Your task to perform on an android device: Search for the best rated headphones on Amazon. Image 0: 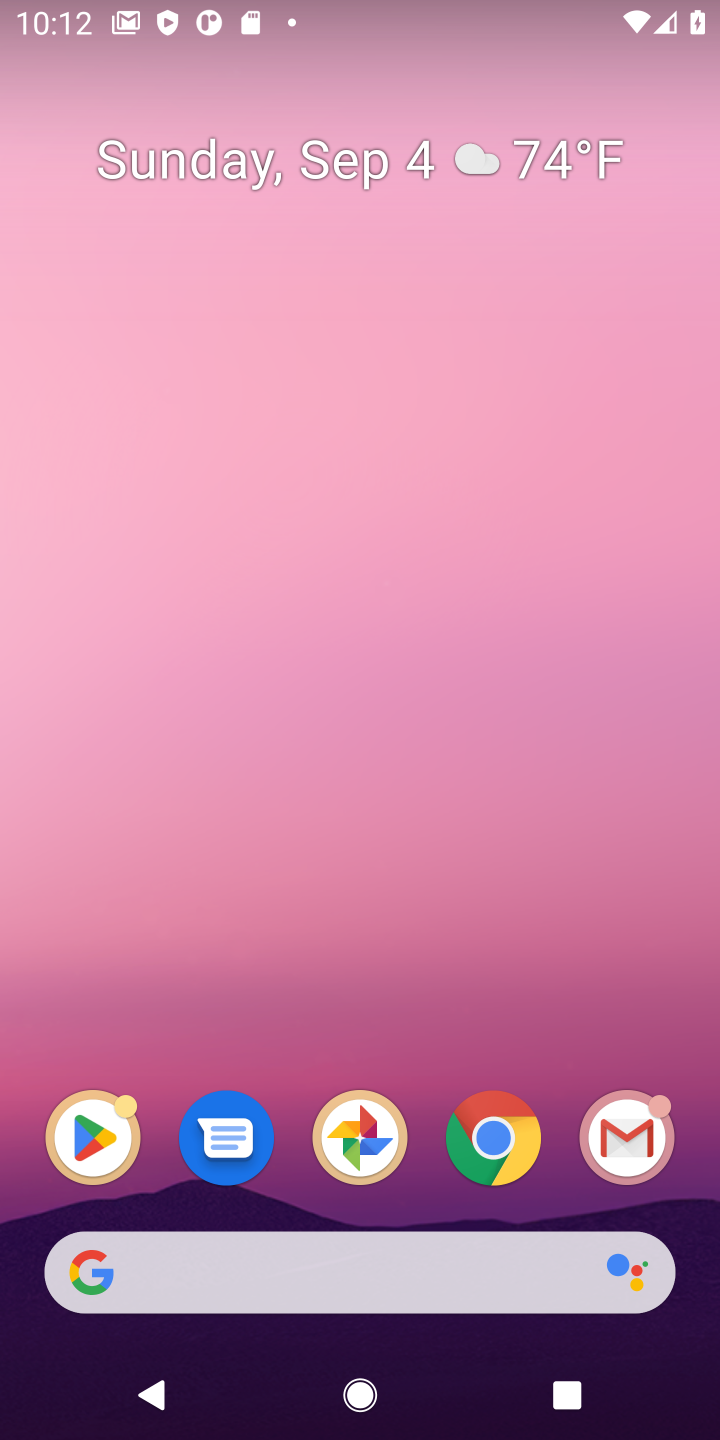
Step 0: click (449, 1131)
Your task to perform on an android device: Search for the best rated headphones on Amazon. Image 1: 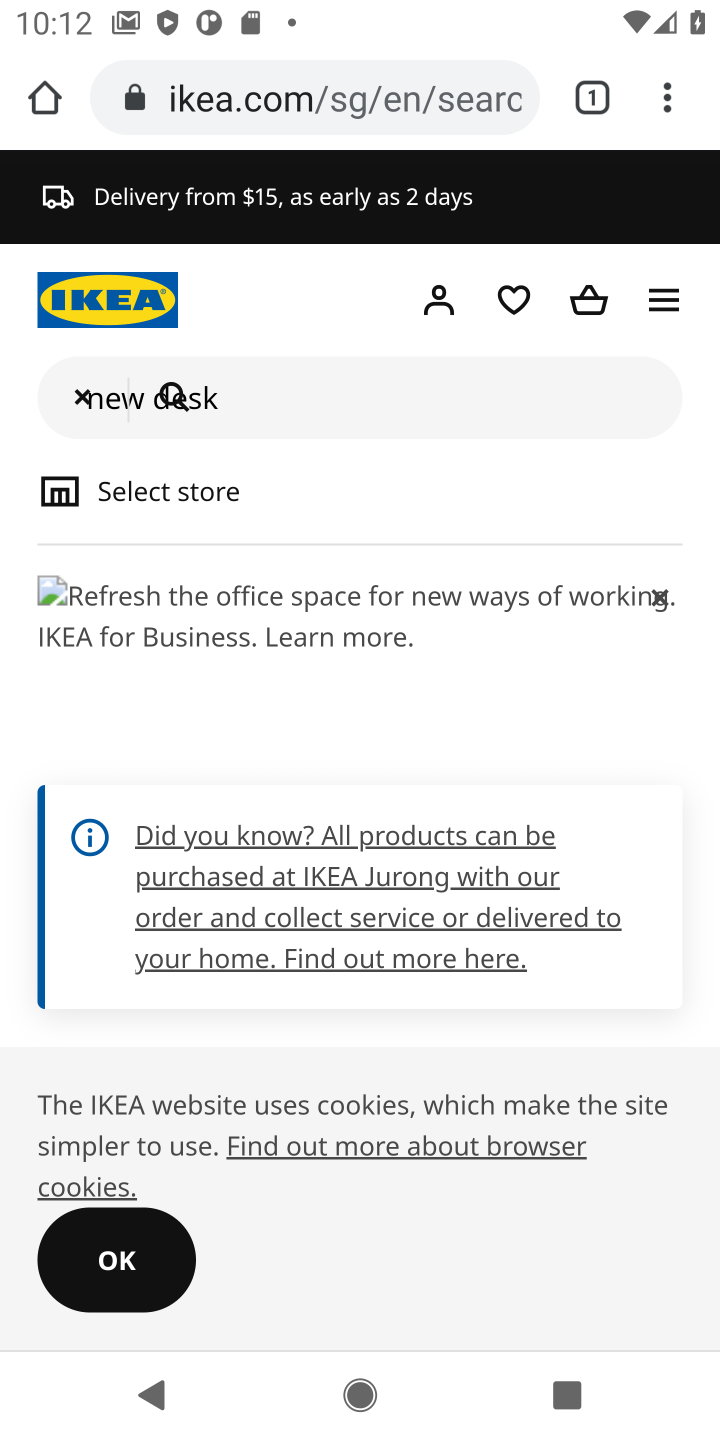
Step 1: click (302, 96)
Your task to perform on an android device: Search for the best rated headphones on Amazon. Image 2: 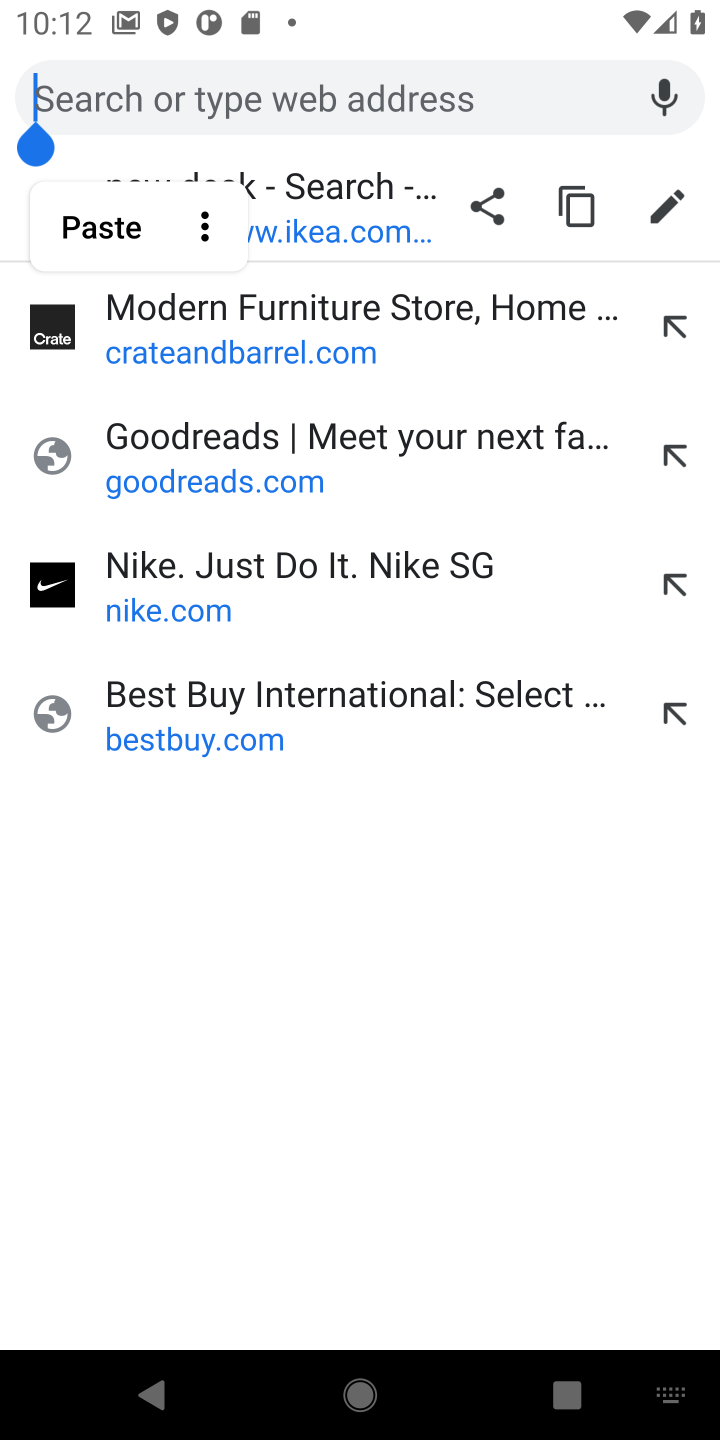
Step 2: type "amazon"
Your task to perform on an android device: Search for the best rated headphones on Amazon. Image 3: 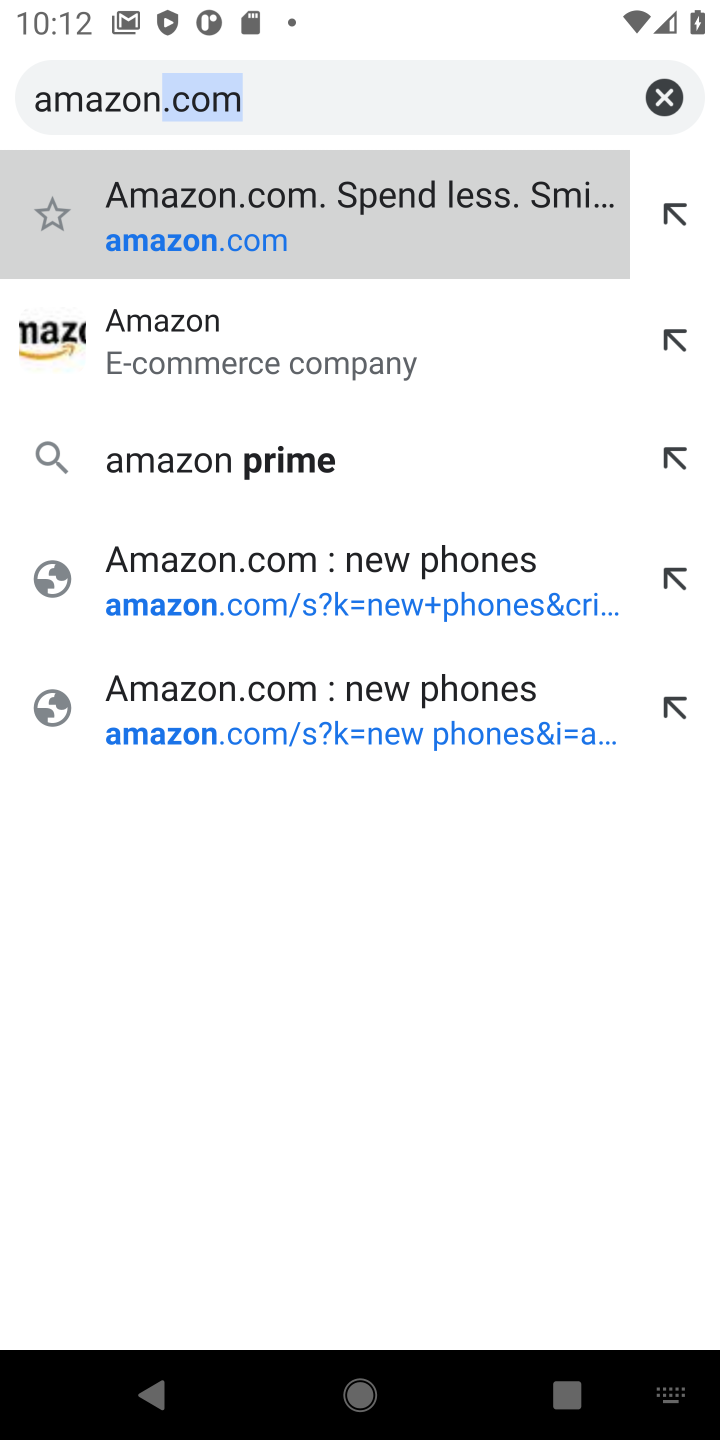
Step 3: click (426, 229)
Your task to perform on an android device: Search for the best rated headphones on Amazon. Image 4: 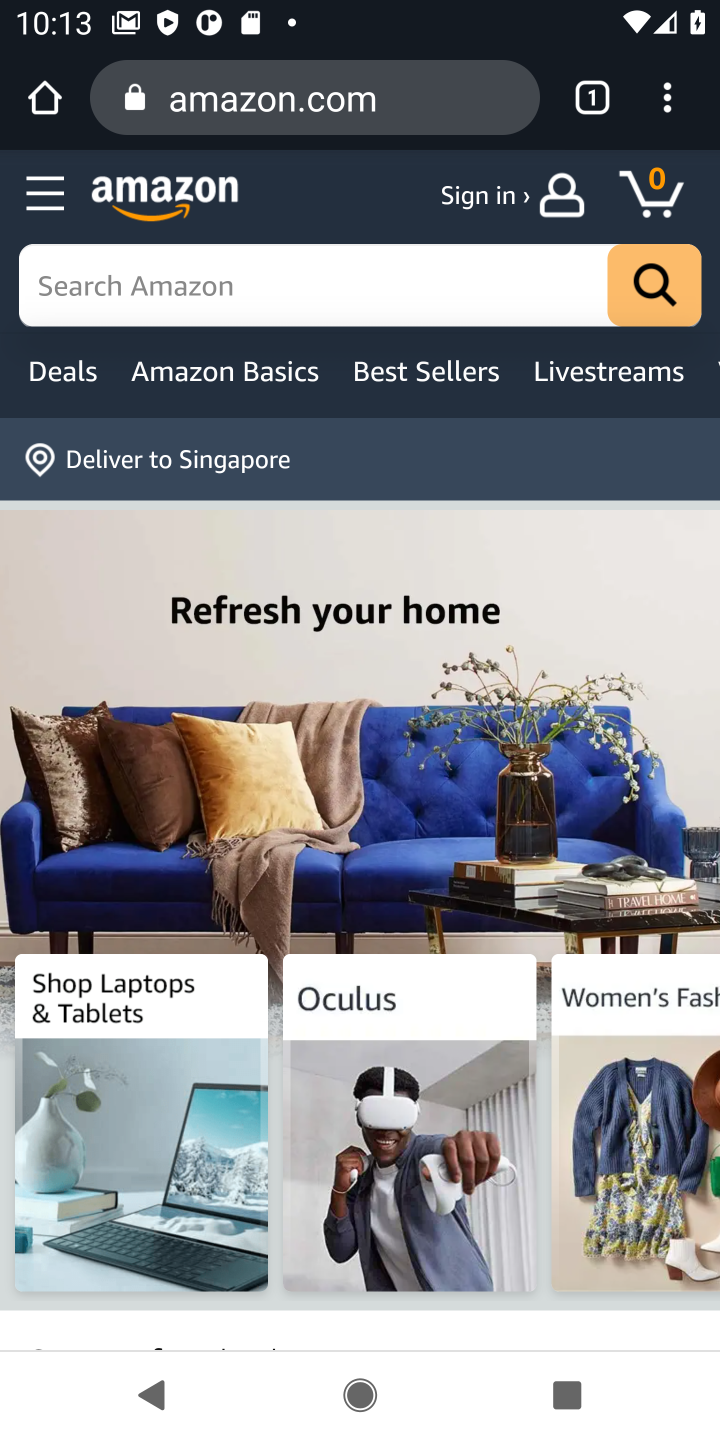
Step 4: click (383, 310)
Your task to perform on an android device: Search for the best rated headphones on Amazon. Image 5: 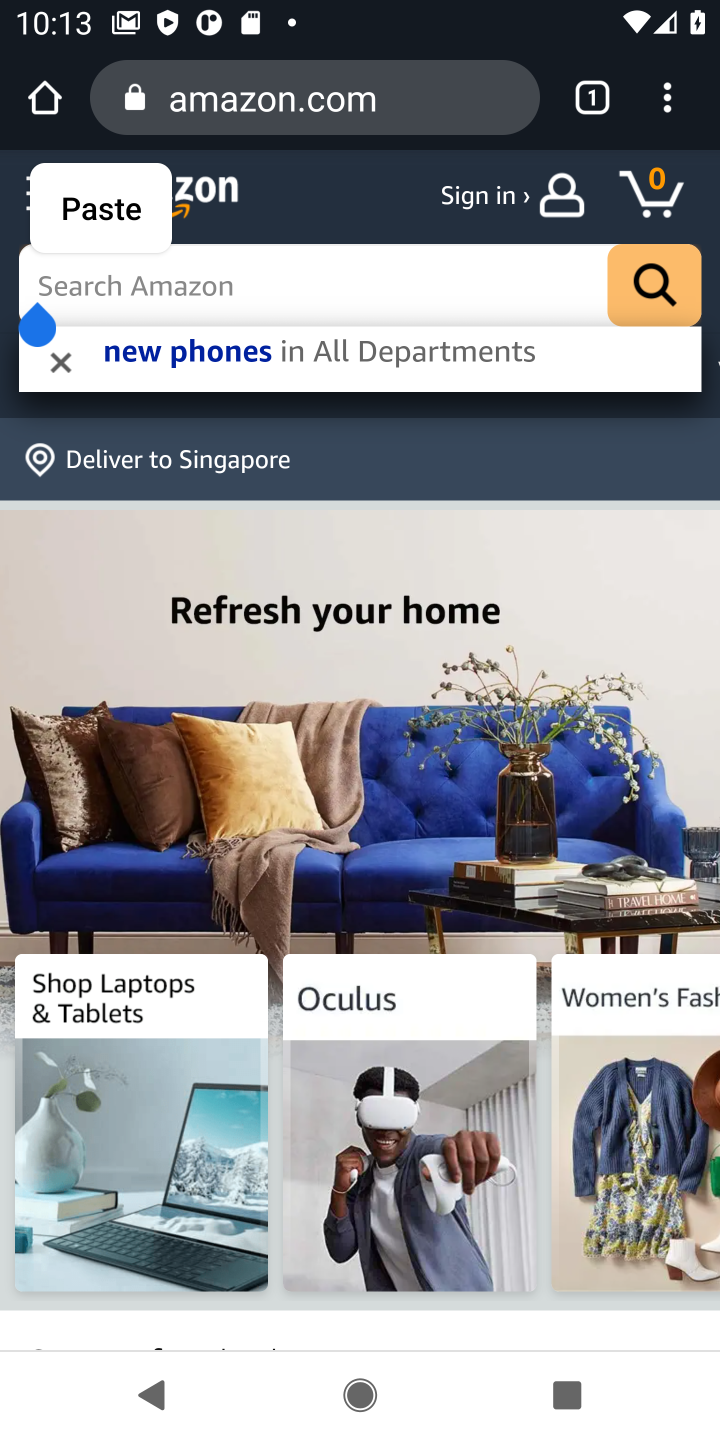
Step 5: type "best rated headphones"
Your task to perform on an android device: Search for the best rated headphones on Amazon. Image 6: 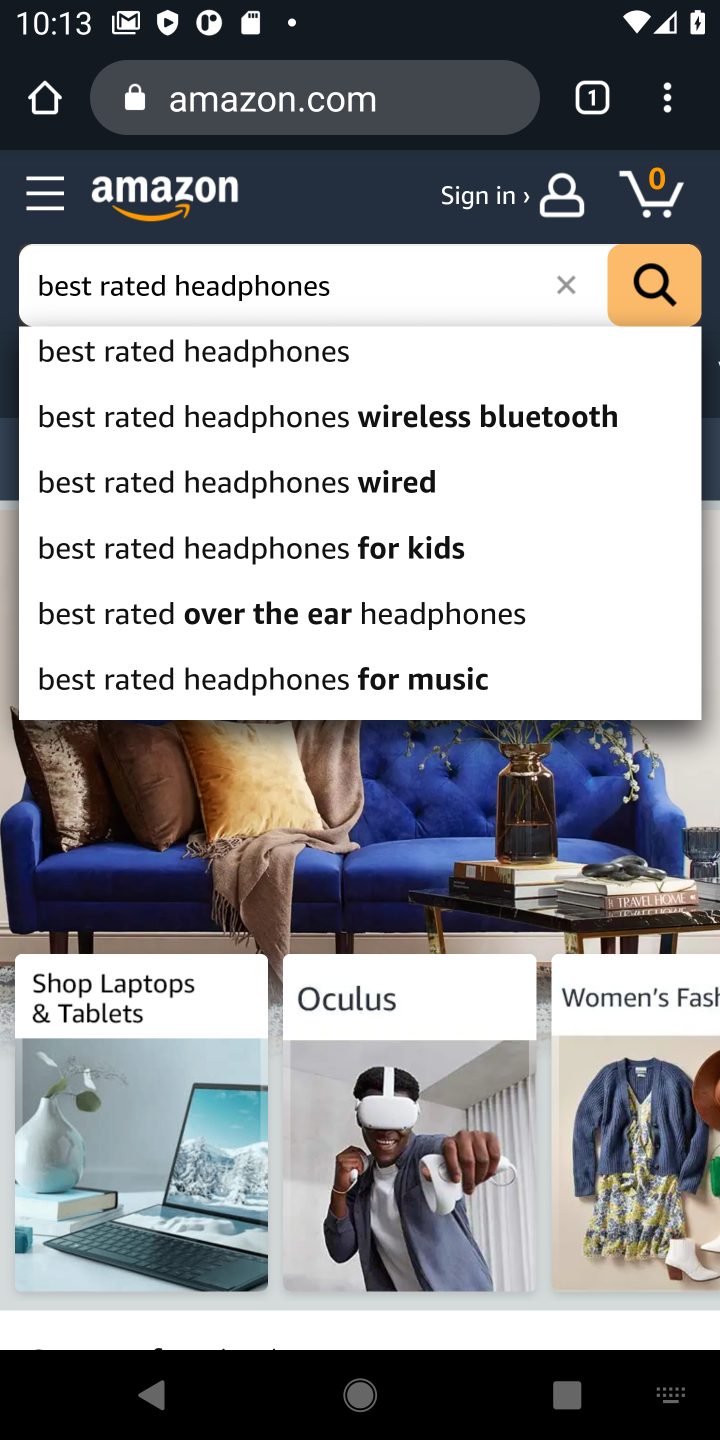
Step 6: click (267, 350)
Your task to perform on an android device: Search for the best rated headphones on Amazon. Image 7: 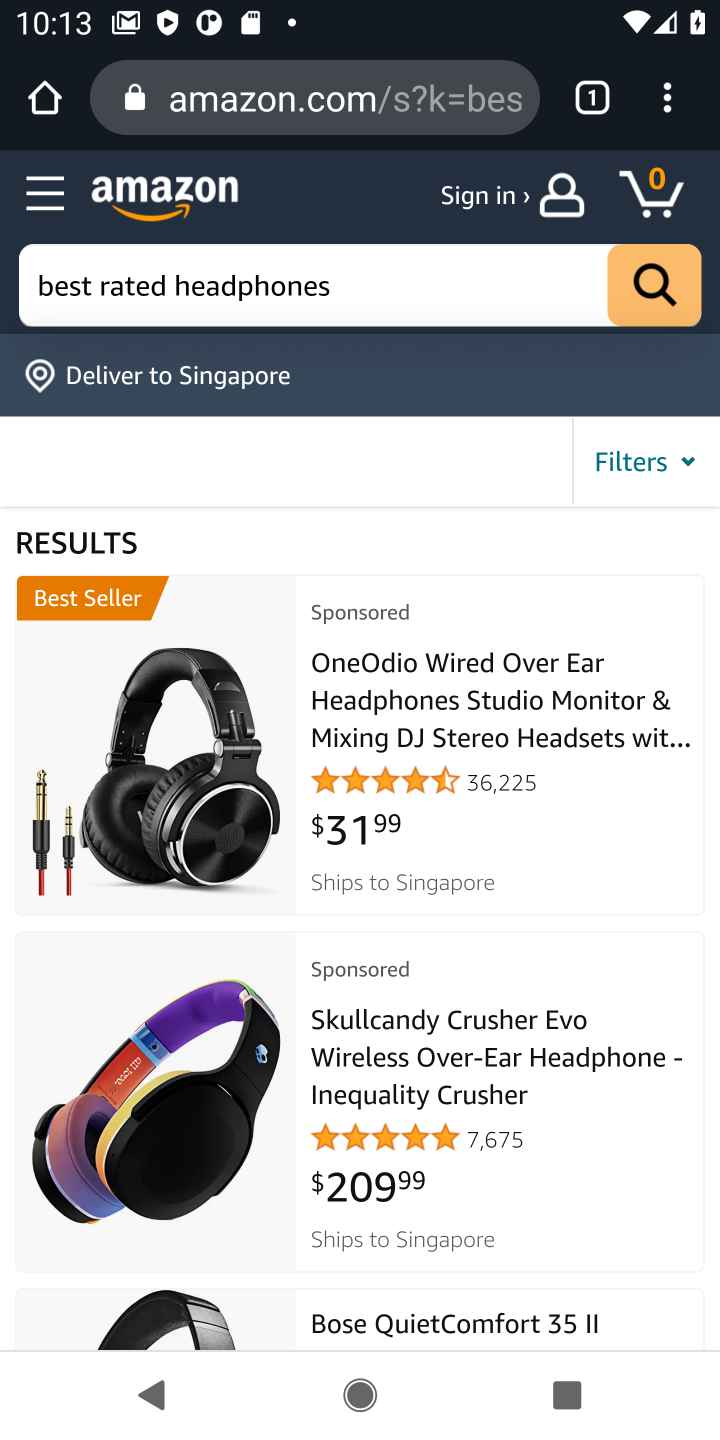
Step 7: task complete